Your task to perform on an android device: Show me productivity apps on the Play Store Image 0: 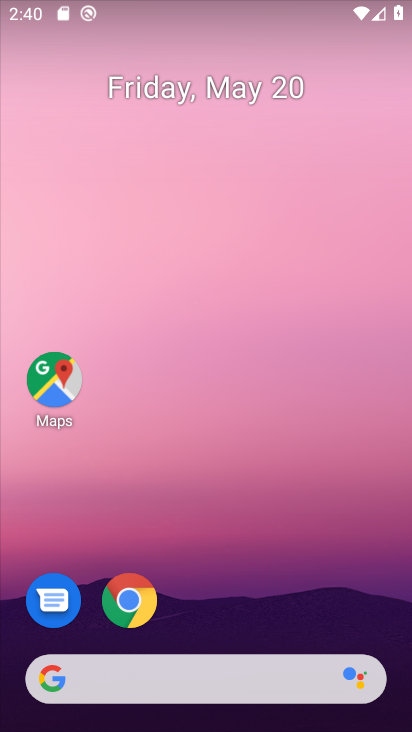
Step 0: drag from (371, 626) to (370, 319)
Your task to perform on an android device: Show me productivity apps on the Play Store Image 1: 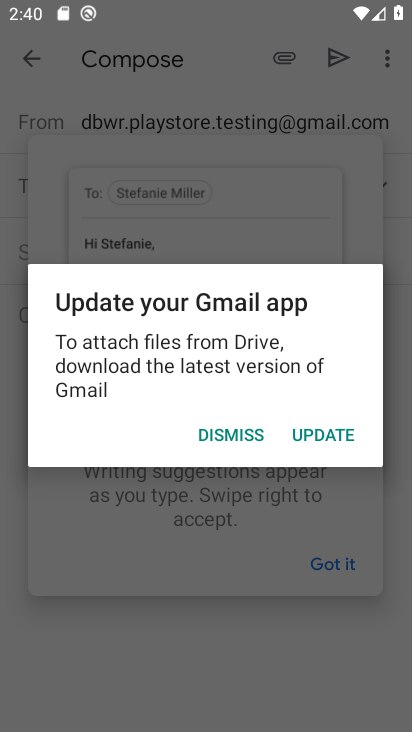
Step 1: press home button
Your task to perform on an android device: Show me productivity apps on the Play Store Image 2: 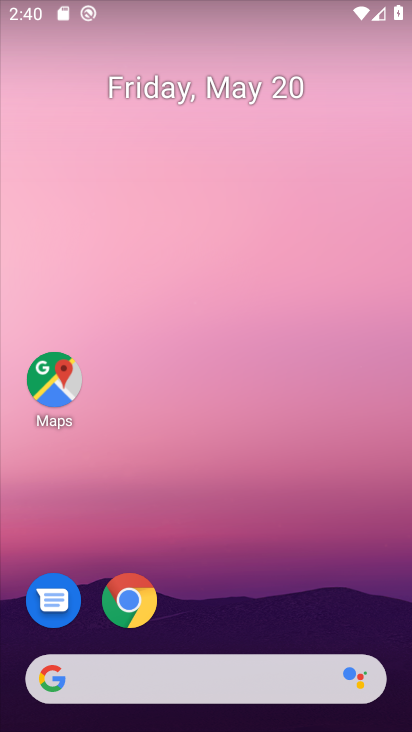
Step 2: drag from (361, 603) to (354, 352)
Your task to perform on an android device: Show me productivity apps on the Play Store Image 3: 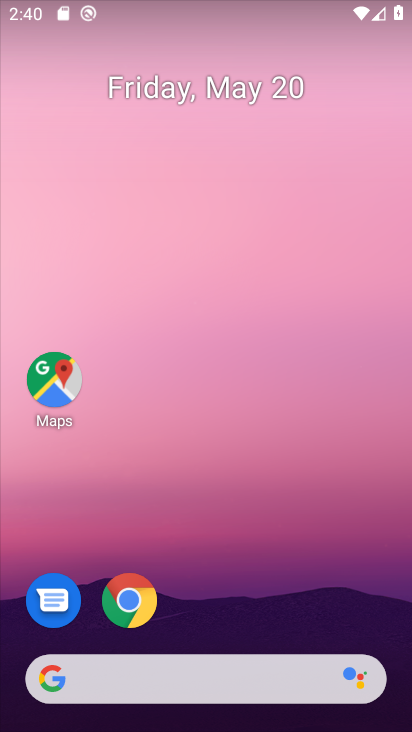
Step 3: drag from (350, 593) to (356, 288)
Your task to perform on an android device: Show me productivity apps on the Play Store Image 4: 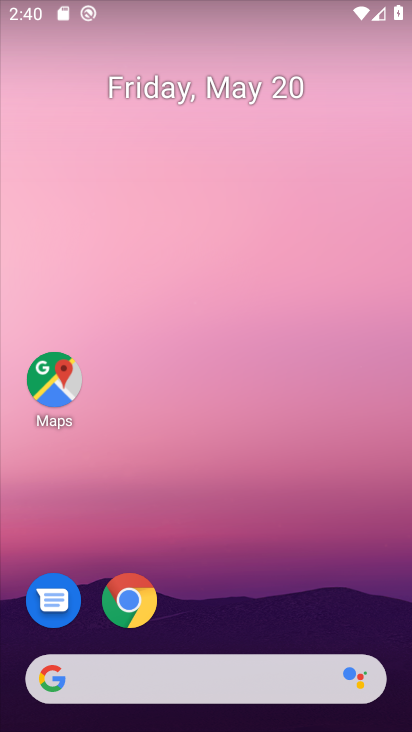
Step 4: drag from (376, 594) to (371, 275)
Your task to perform on an android device: Show me productivity apps on the Play Store Image 5: 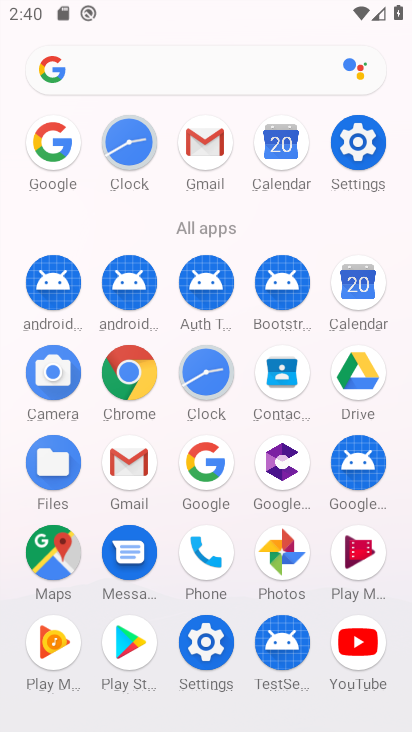
Step 5: click (128, 665)
Your task to perform on an android device: Show me productivity apps on the Play Store Image 6: 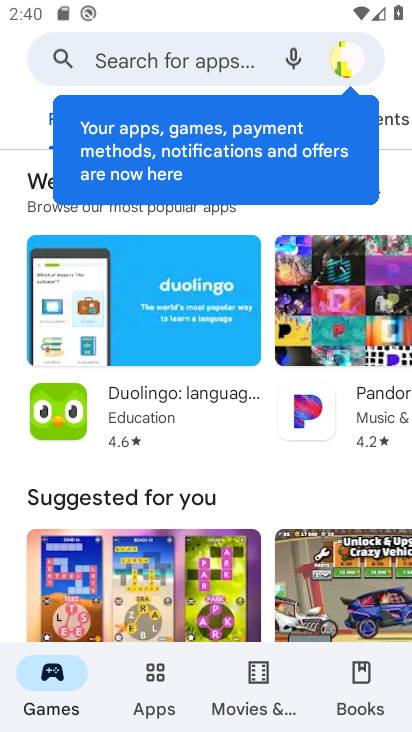
Step 6: click (155, 696)
Your task to perform on an android device: Show me productivity apps on the Play Store Image 7: 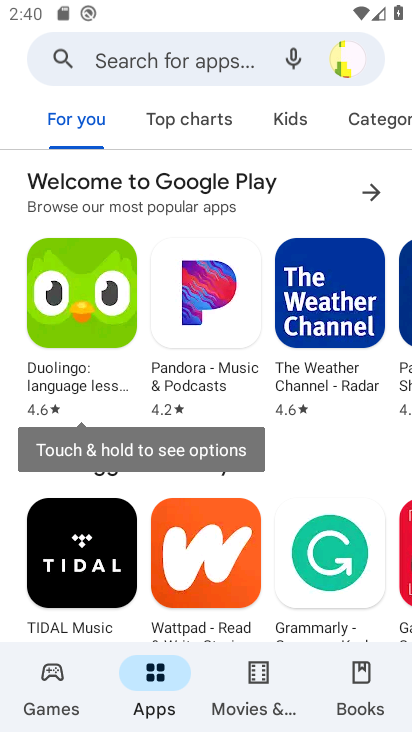
Step 7: task complete